Your task to perform on an android device: change the clock display to show seconds Image 0: 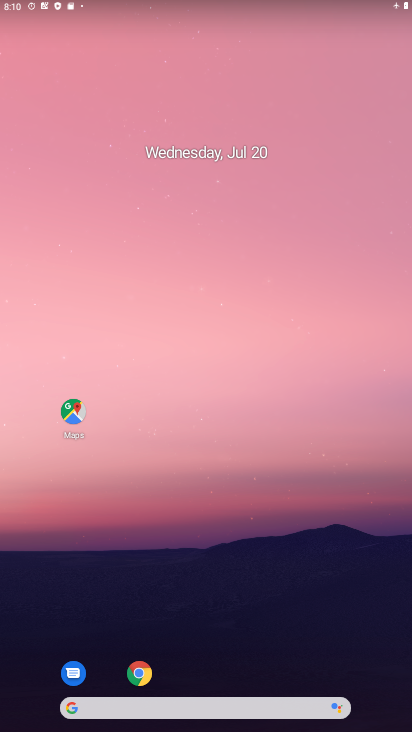
Step 0: drag from (370, 672) to (185, 80)
Your task to perform on an android device: change the clock display to show seconds Image 1: 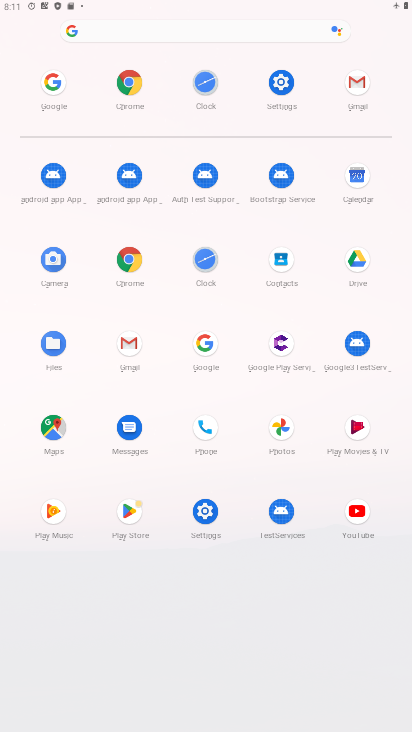
Step 1: click (201, 252)
Your task to perform on an android device: change the clock display to show seconds Image 2: 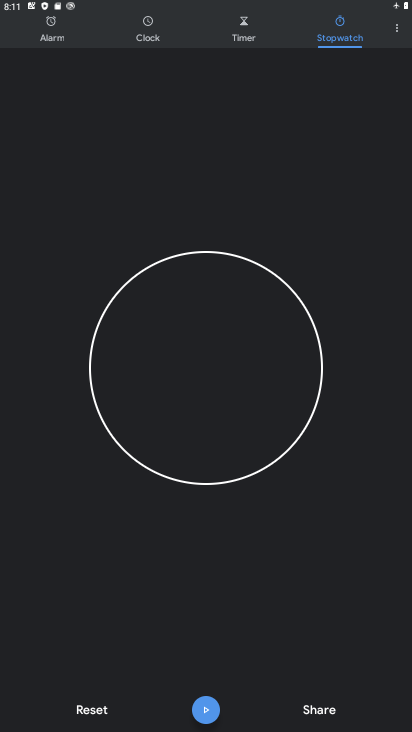
Step 2: click (394, 29)
Your task to perform on an android device: change the clock display to show seconds Image 3: 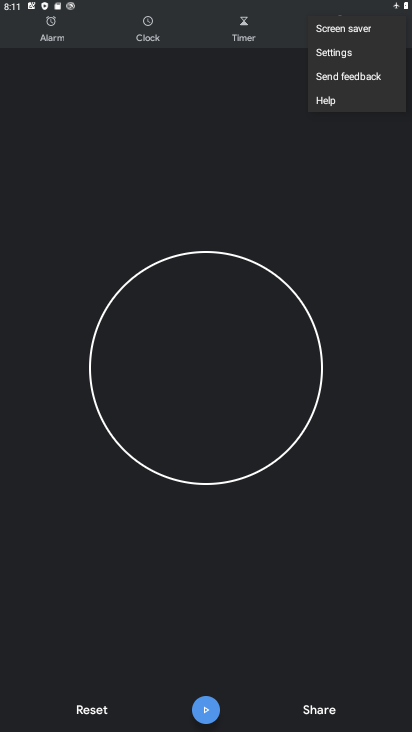
Step 3: click (356, 48)
Your task to perform on an android device: change the clock display to show seconds Image 4: 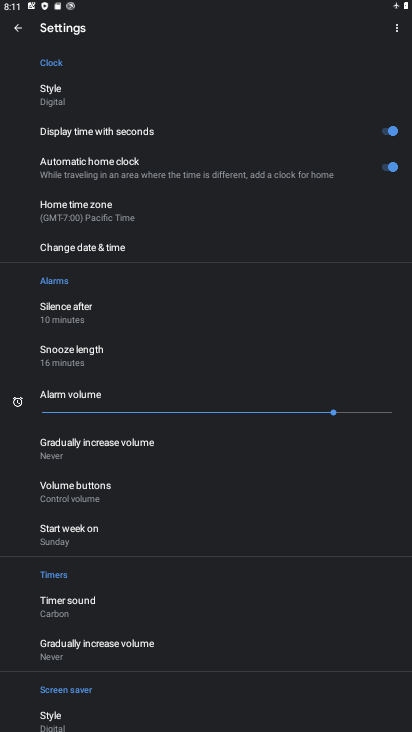
Step 4: click (369, 128)
Your task to perform on an android device: change the clock display to show seconds Image 5: 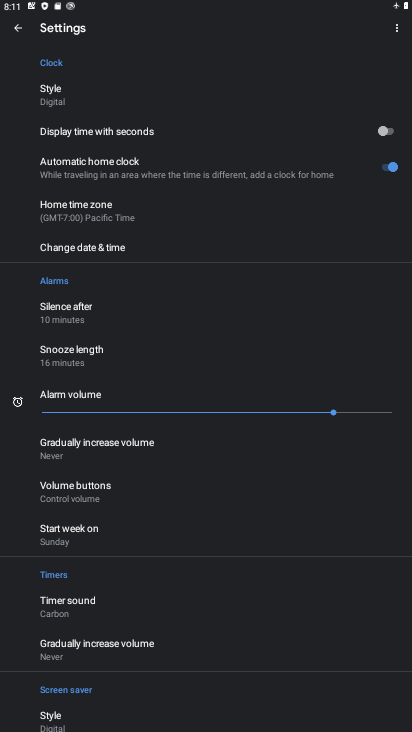
Step 5: task complete